Your task to perform on an android device: Open location settings Image 0: 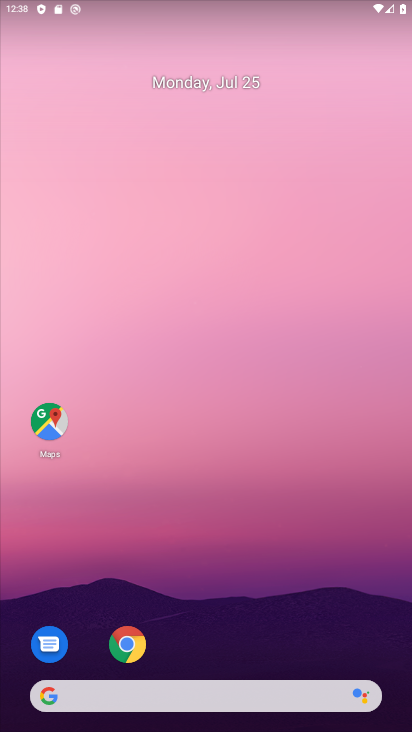
Step 0: drag from (222, 729) to (221, 110)
Your task to perform on an android device: Open location settings Image 1: 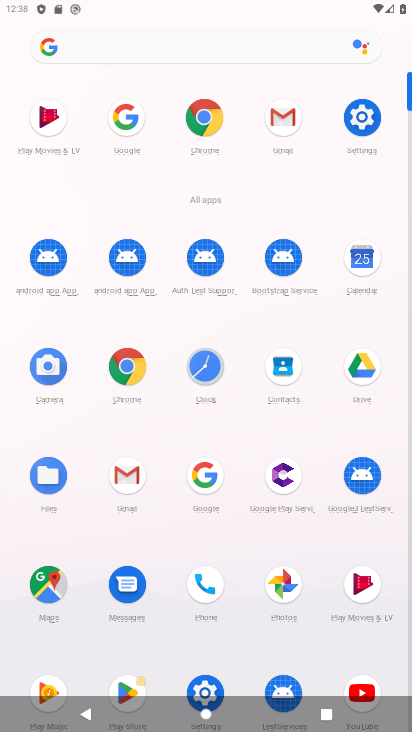
Step 1: click (365, 117)
Your task to perform on an android device: Open location settings Image 2: 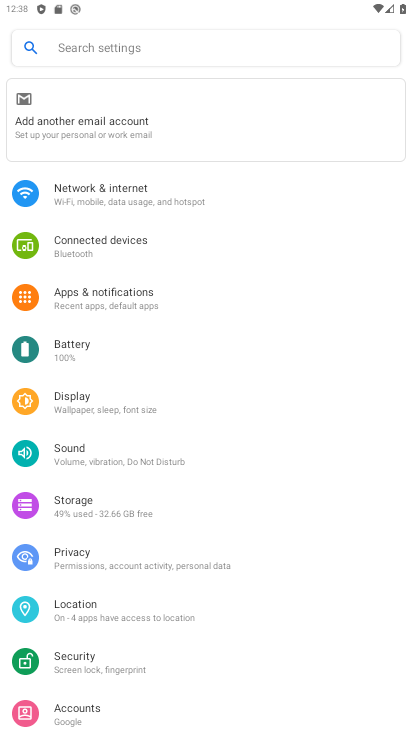
Step 2: click (70, 605)
Your task to perform on an android device: Open location settings Image 3: 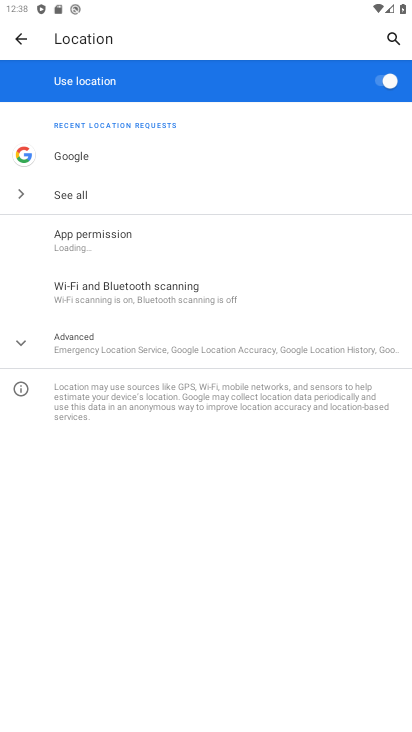
Step 3: task complete